Your task to perform on an android device: turn off notifications settings in the gmail app Image 0: 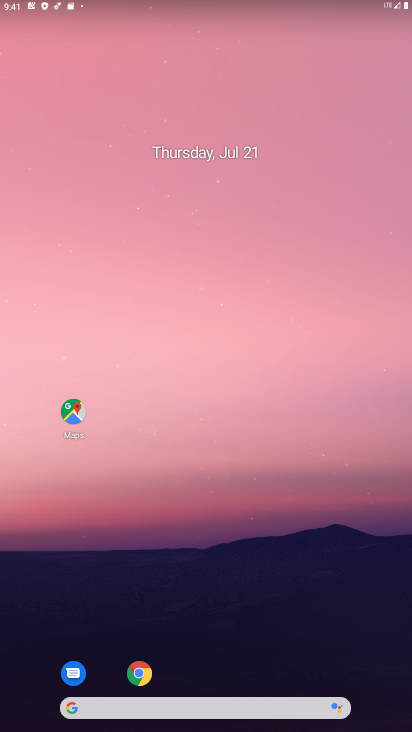
Step 0: drag from (186, 667) to (191, 272)
Your task to perform on an android device: turn off notifications settings in the gmail app Image 1: 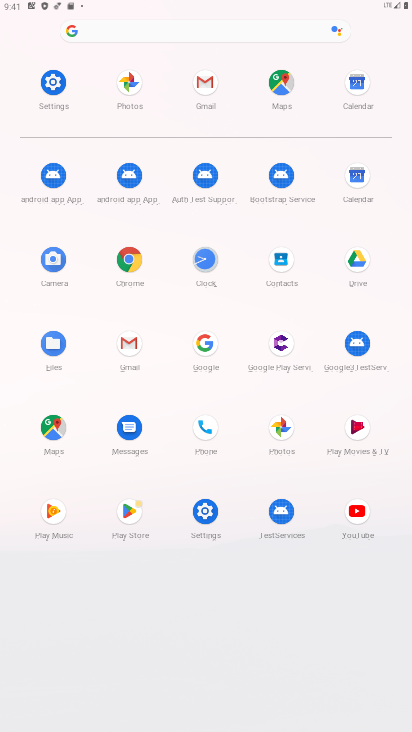
Step 1: click (183, 83)
Your task to perform on an android device: turn off notifications settings in the gmail app Image 2: 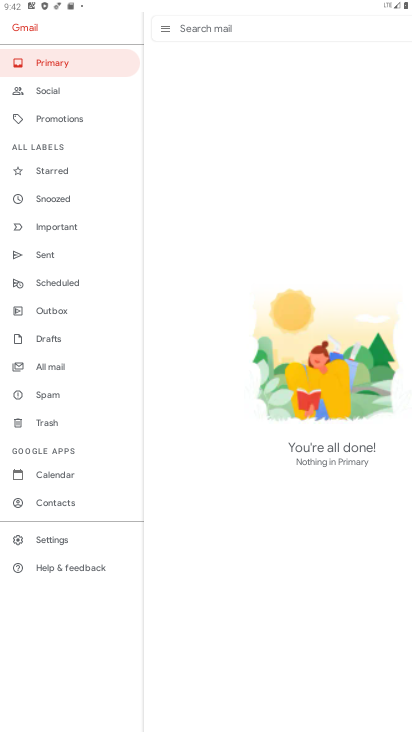
Step 2: click (41, 541)
Your task to perform on an android device: turn off notifications settings in the gmail app Image 3: 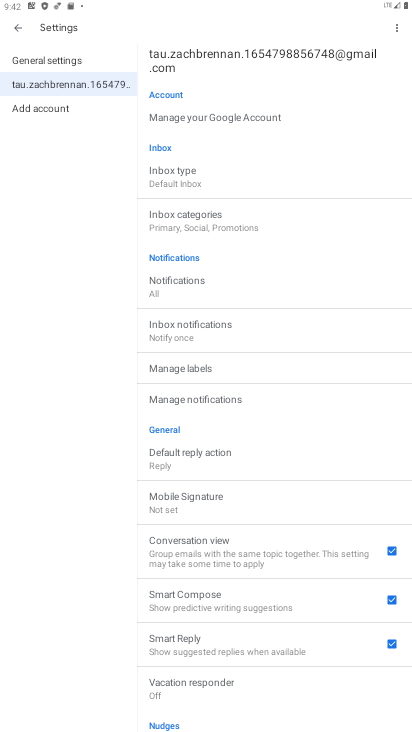
Step 3: click (230, 396)
Your task to perform on an android device: turn off notifications settings in the gmail app Image 4: 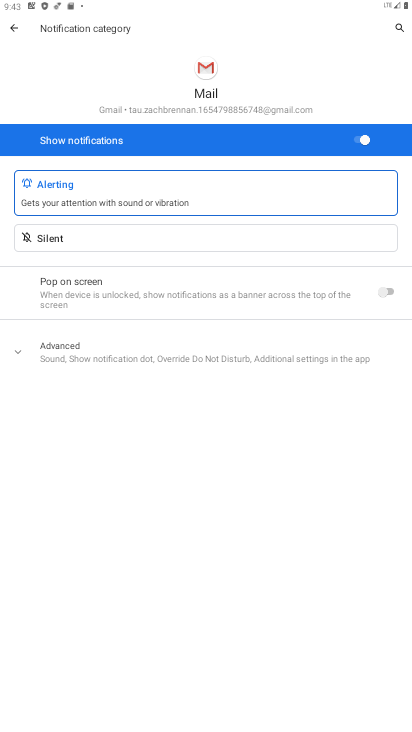
Step 4: click (347, 140)
Your task to perform on an android device: turn off notifications settings in the gmail app Image 5: 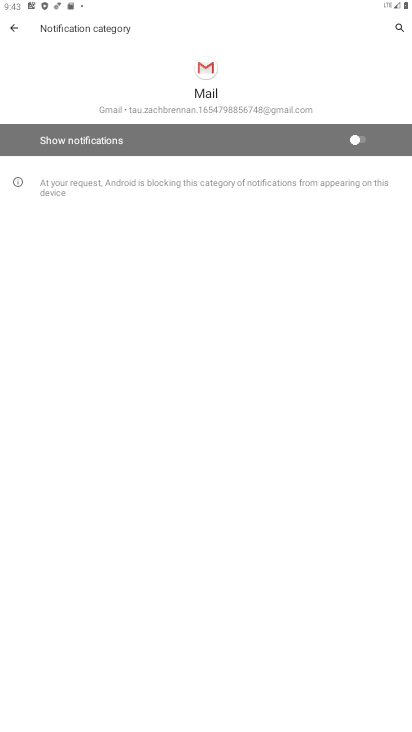
Step 5: task complete